Your task to perform on an android device: Go to internet settings Image 0: 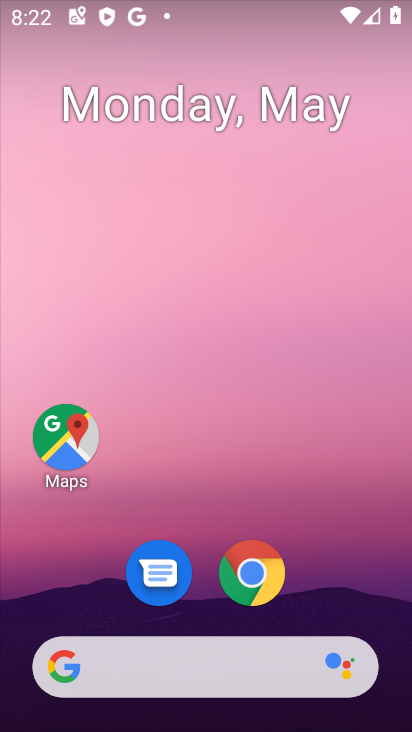
Step 0: drag from (243, 650) to (359, 135)
Your task to perform on an android device: Go to internet settings Image 1: 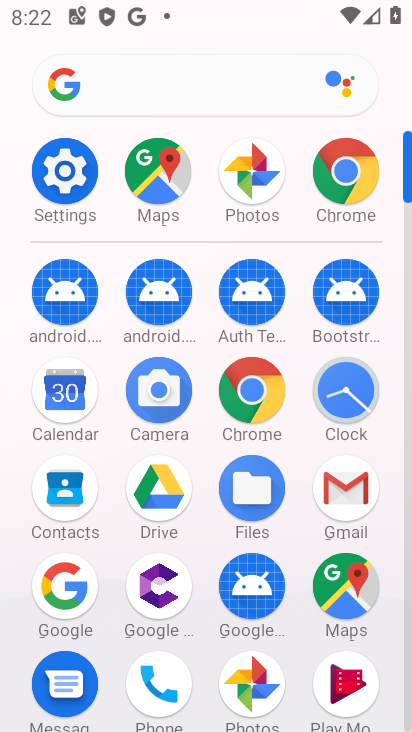
Step 1: click (78, 182)
Your task to perform on an android device: Go to internet settings Image 2: 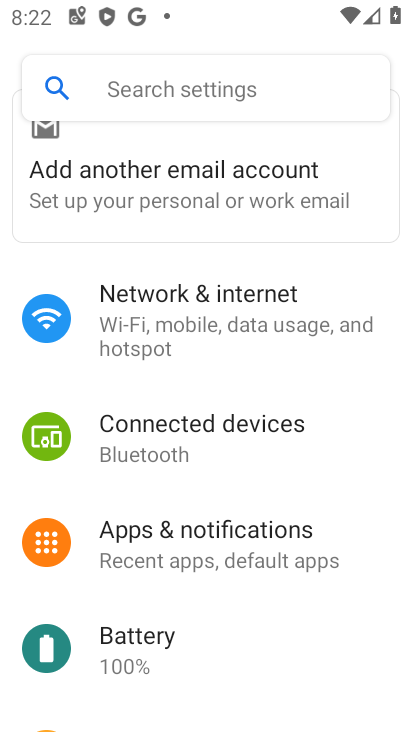
Step 2: click (242, 310)
Your task to perform on an android device: Go to internet settings Image 3: 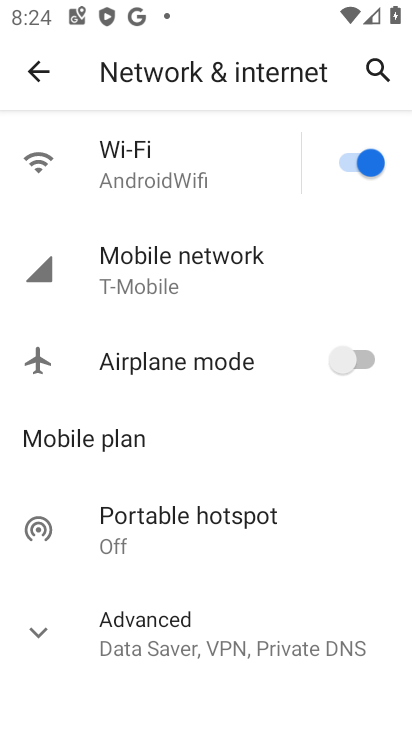
Step 3: click (247, 300)
Your task to perform on an android device: Go to internet settings Image 4: 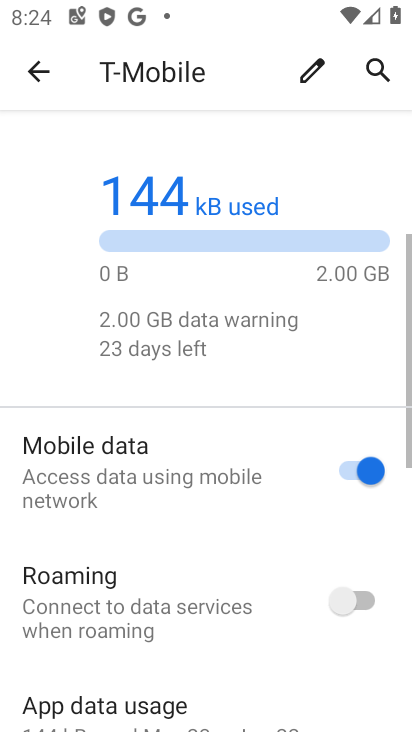
Step 4: task complete